Your task to perform on an android device: choose inbox layout in the gmail app Image 0: 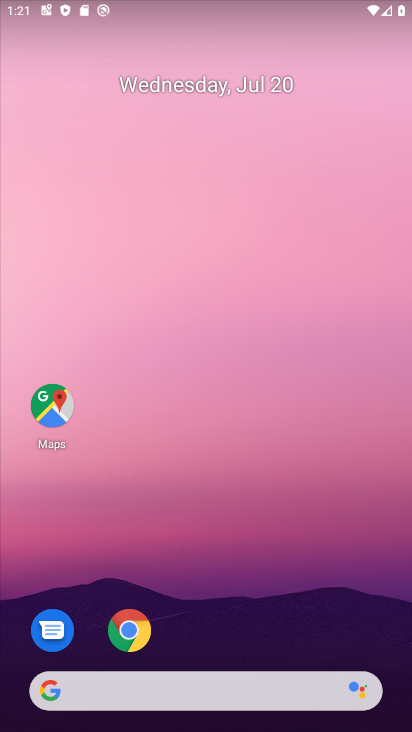
Step 0: drag from (344, 579) to (307, 110)
Your task to perform on an android device: choose inbox layout in the gmail app Image 1: 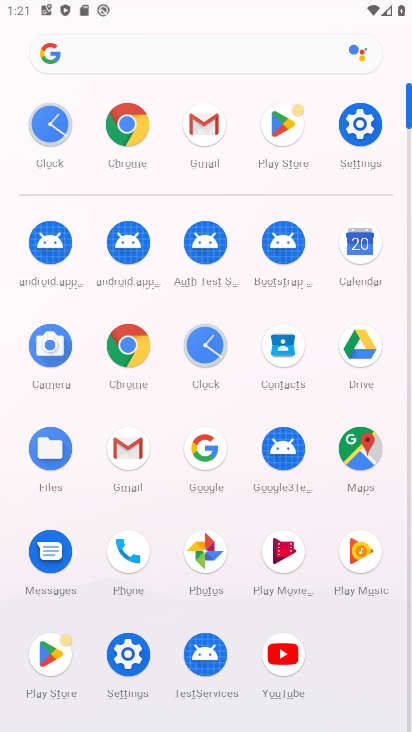
Step 1: click (217, 129)
Your task to perform on an android device: choose inbox layout in the gmail app Image 2: 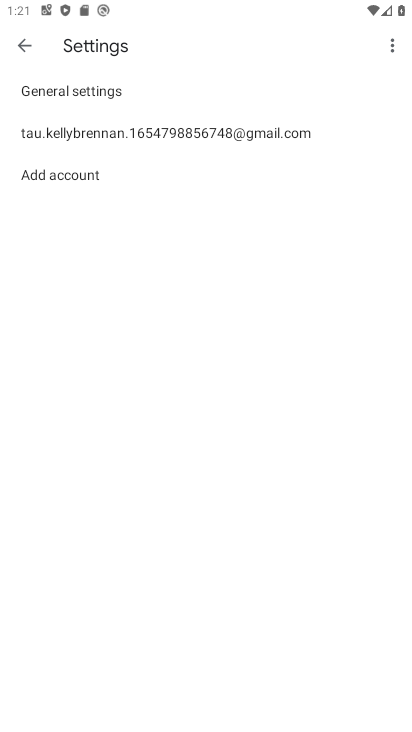
Step 2: click (97, 142)
Your task to perform on an android device: choose inbox layout in the gmail app Image 3: 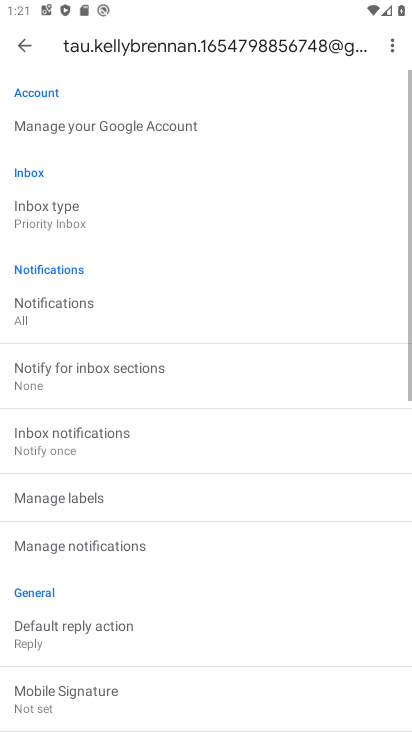
Step 3: click (71, 212)
Your task to perform on an android device: choose inbox layout in the gmail app Image 4: 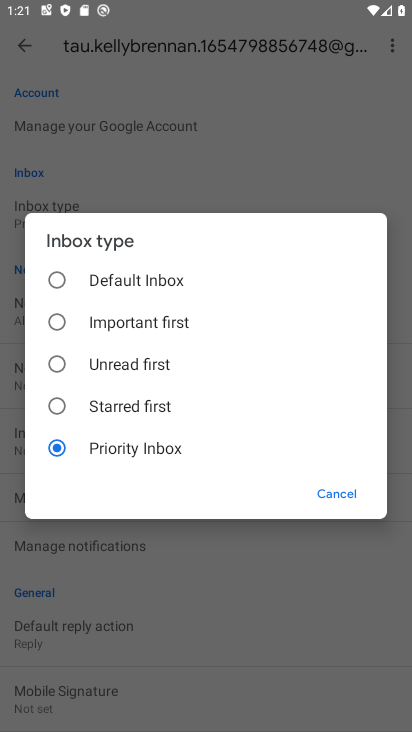
Step 4: task complete